Your task to perform on an android device: What is the news today? Image 0: 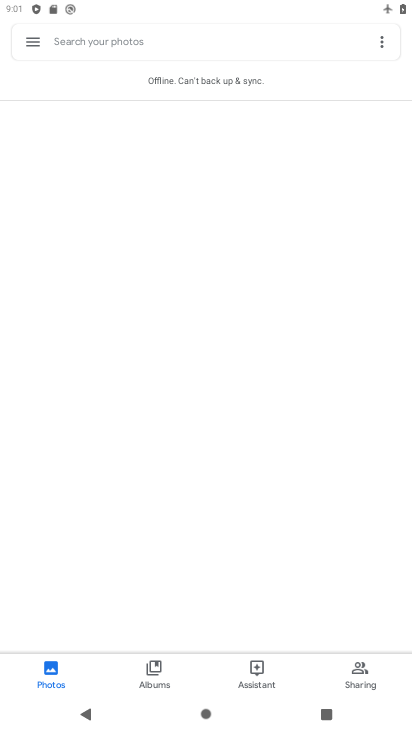
Step 0: press home button
Your task to perform on an android device: What is the news today? Image 1: 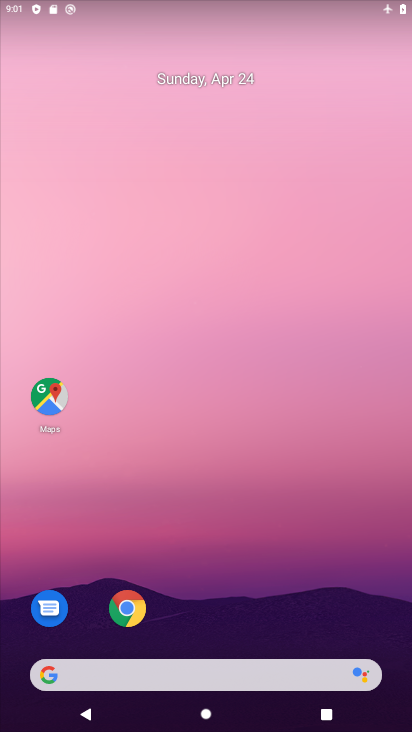
Step 1: drag from (207, 635) to (200, 253)
Your task to perform on an android device: What is the news today? Image 2: 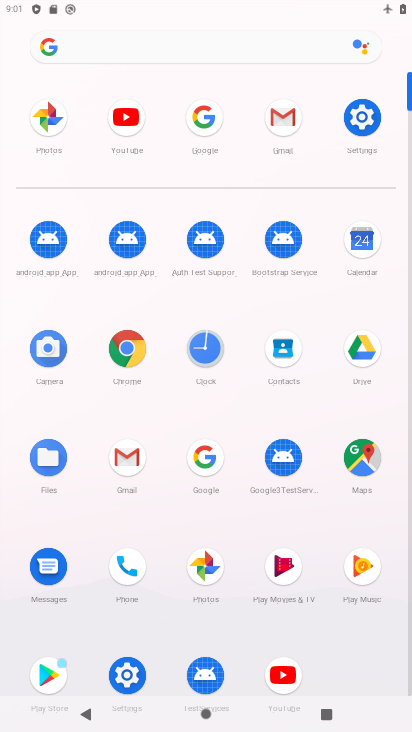
Step 2: click (199, 117)
Your task to perform on an android device: What is the news today? Image 3: 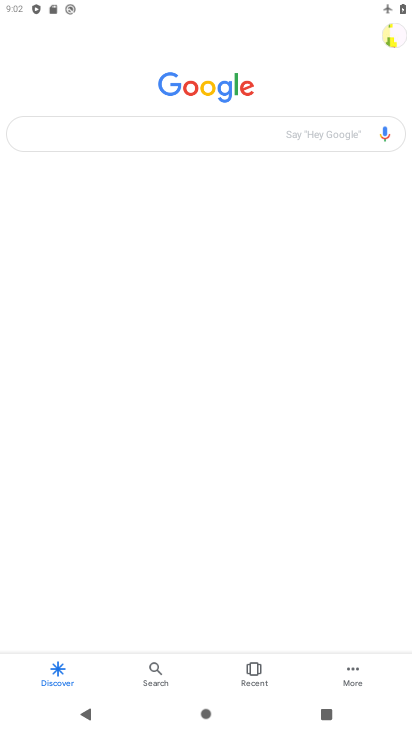
Step 3: task complete